Your task to perform on an android device: turn pop-ups off in chrome Image 0: 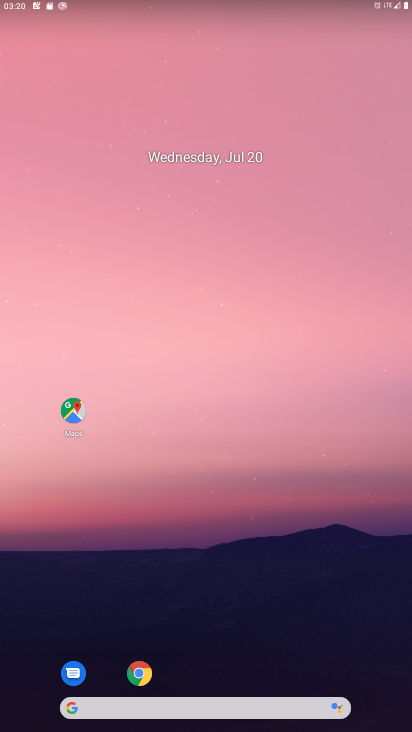
Step 0: drag from (199, 674) to (187, 157)
Your task to perform on an android device: turn pop-ups off in chrome Image 1: 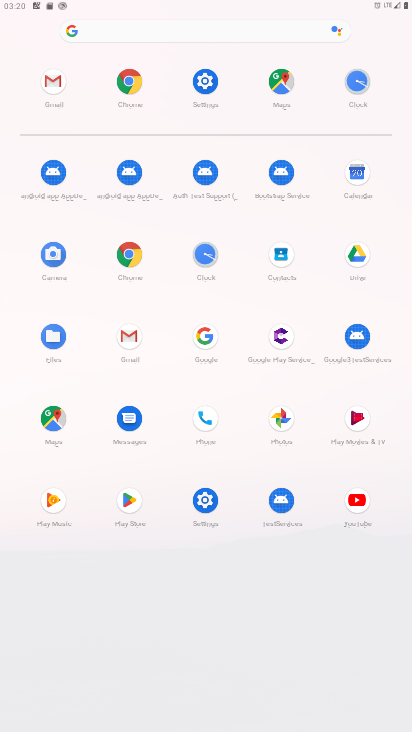
Step 1: click (135, 262)
Your task to perform on an android device: turn pop-ups off in chrome Image 2: 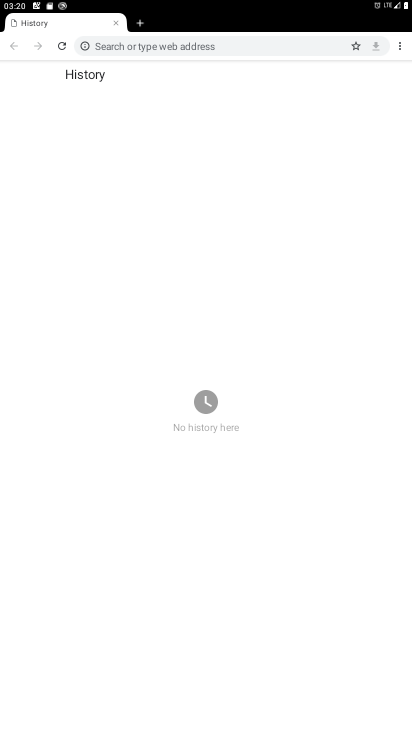
Step 2: click (398, 45)
Your task to perform on an android device: turn pop-ups off in chrome Image 3: 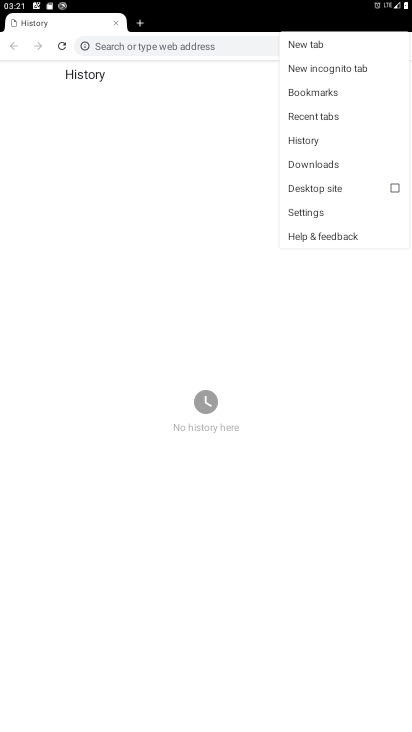
Step 3: click (318, 218)
Your task to perform on an android device: turn pop-ups off in chrome Image 4: 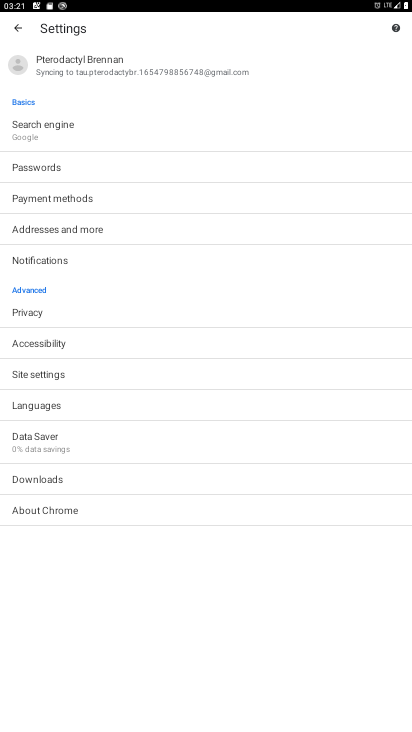
Step 4: click (45, 375)
Your task to perform on an android device: turn pop-ups off in chrome Image 5: 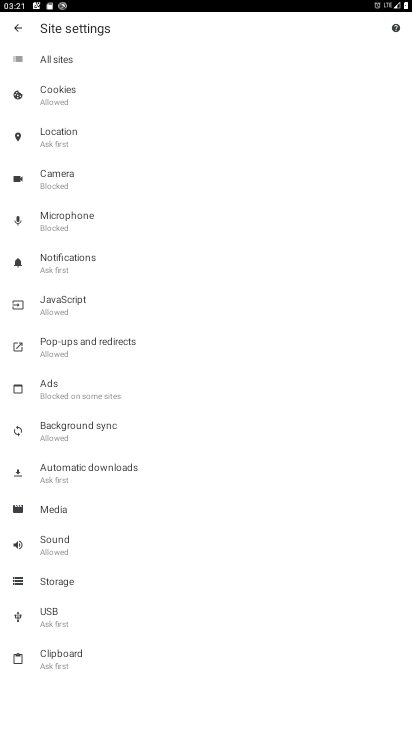
Step 5: click (67, 345)
Your task to perform on an android device: turn pop-ups off in chrome Image 6: 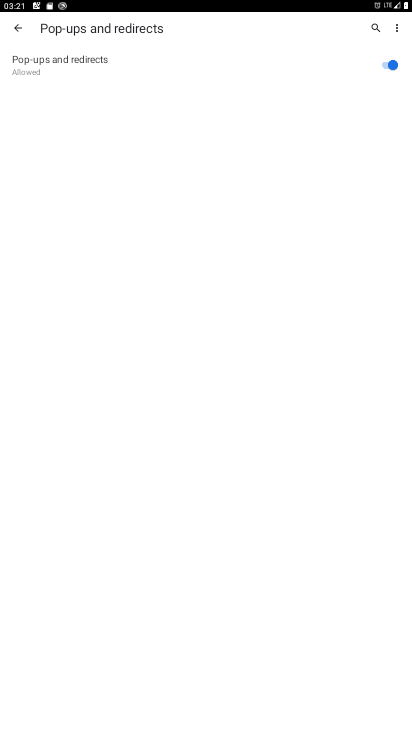
Step 6: click (370, 61)
Your task to perform on an android device: turn pop-ups off in chrome Image 7: 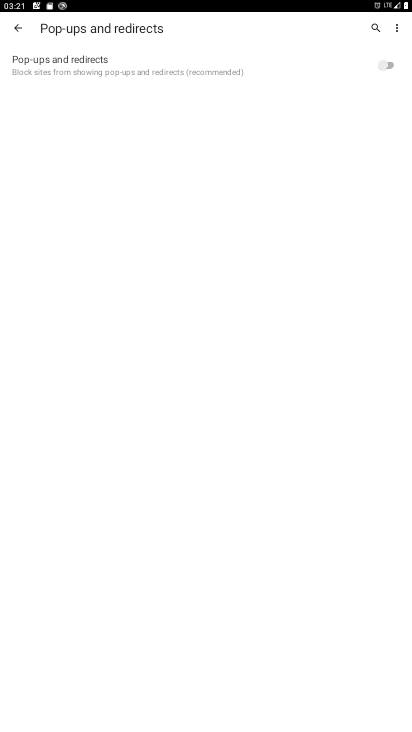
Step 7: task complete